Your task to perform on an android device: Play the latest video from the Washington Post Image 0: 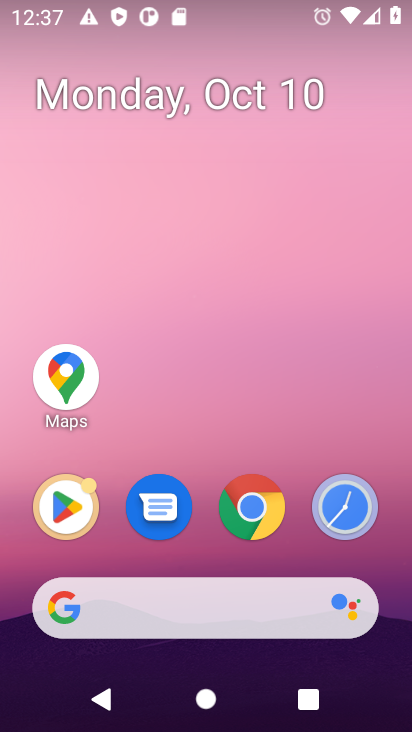
Step 0: press home button
Your task to perform on an android device: Play the latest video from the Washington Post Image 1: 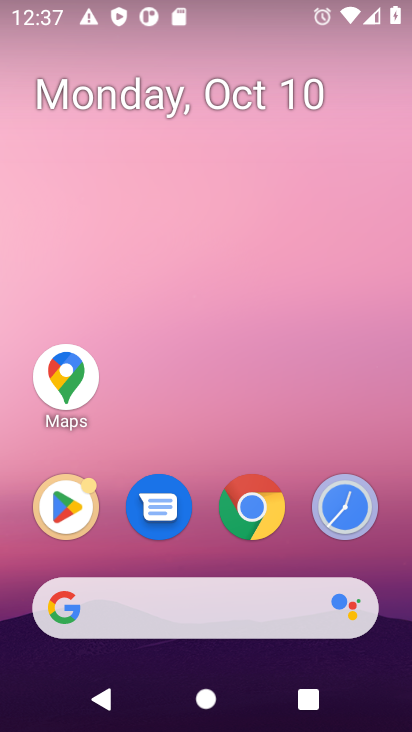
Step 1: click (250, 615)
Your task to perform on an android device: Play the latest video from the Washington Post Image 2: 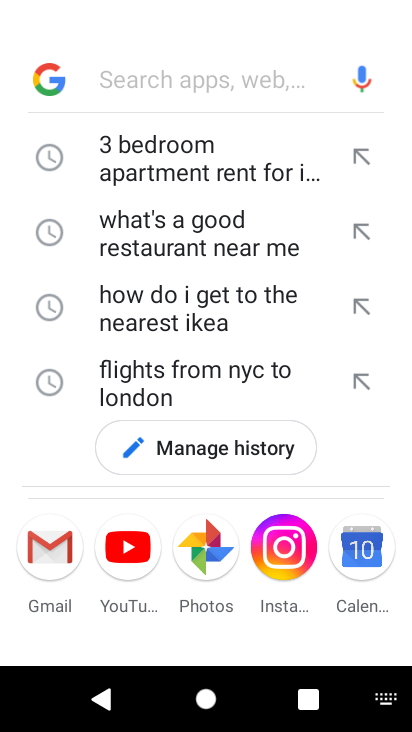
Step 2: type "Play the latest video from the Washington Post"
Your task to perform on an android device: Play the latest video from the Washington Post Image 3: 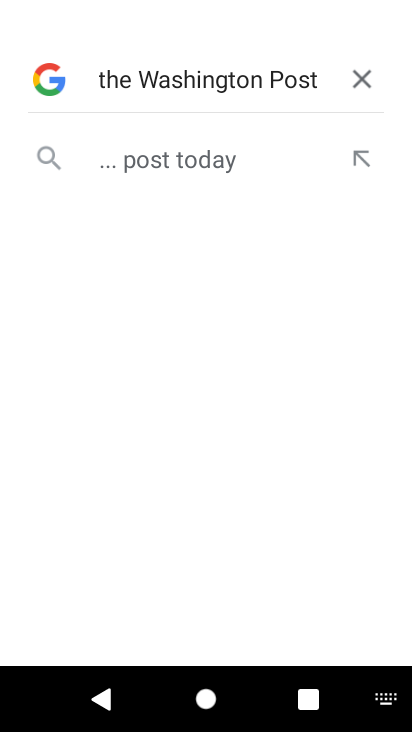
Step 3: press enter
Your task to perform on an android device: Play the latest video from the Washington Post Image 4: 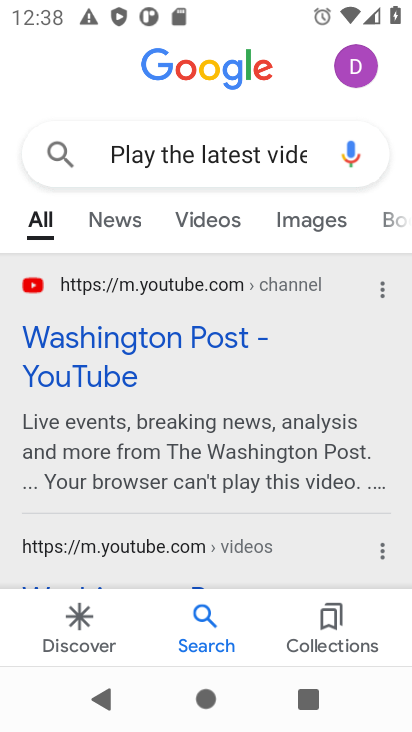
Step 4: drag from (242, 508) to (241, 320)
Your task to perform on an android device: Play the latest video from the Washington Post Image 5: 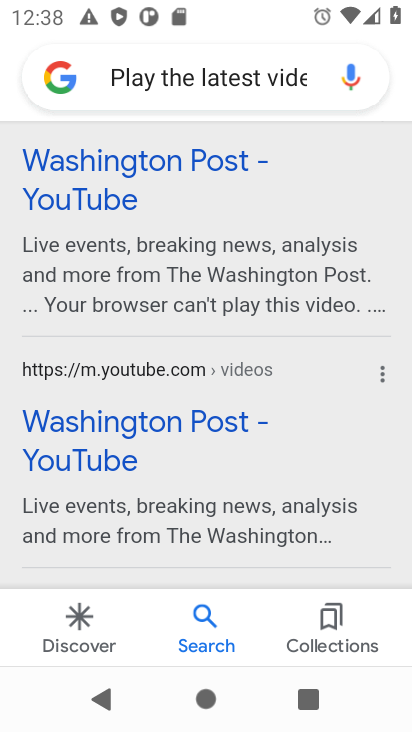
Step 5: click (137, 155)
Your task to perform on an android device: Play the latest video from the Washington Post Image 6: 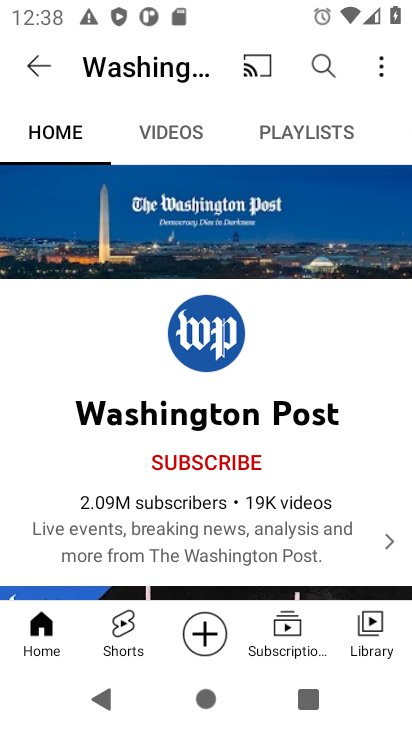
Step 6: task complete